Your task to perform on an android device: visit the assistant section in the google photos Image 0: 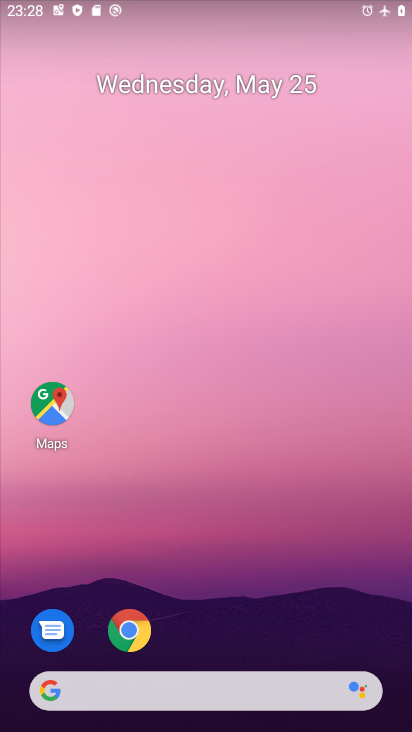
Step 0: drag from (233, 632) to (248, 74)
Your task to perform on an android device: visit the assistant section in the google photos Image 1: 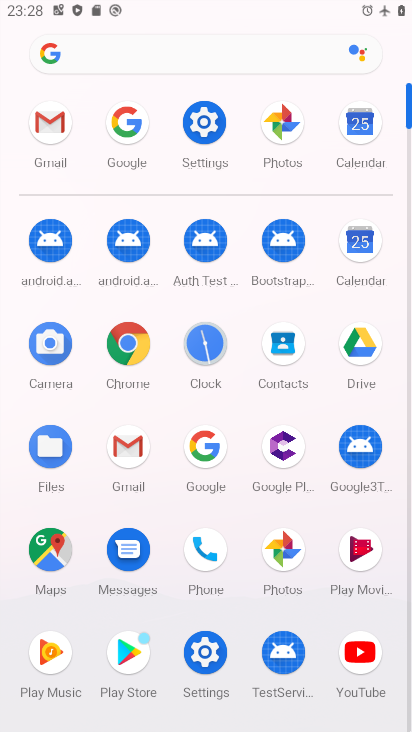
Step 1: click (279, 140)
Your task to perform on an android device: visit the assistant section in the google photos Image 2: 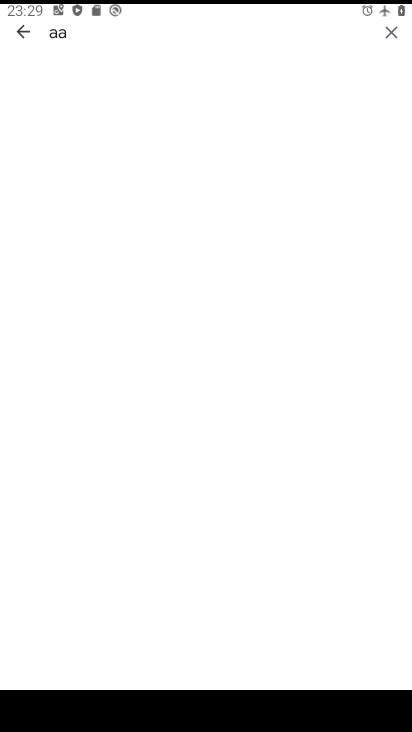
Step 2: click (24, 33)
Your task to perform on an android device: visit the assistant section in the google photos Image 3: 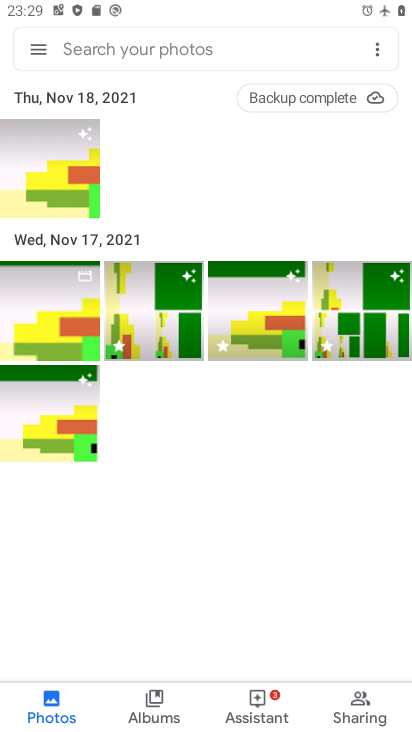
Step 3: click (265, 697)
Your task to perform on an android device: visit the assistant section in the google photos Image 4: 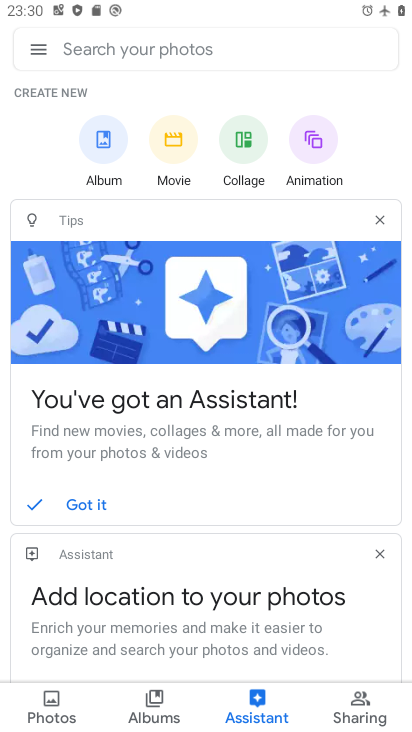
Step 4: task complete